Your task to perform on an android device: Open Youtube and go to "Your channel" Image 0: 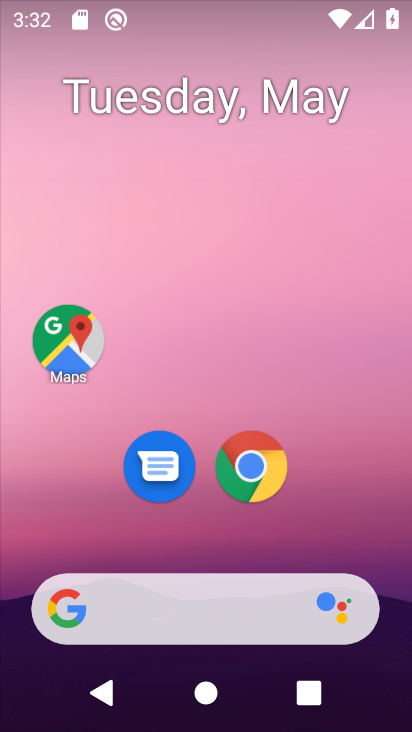
Step 0: drag from (309, 512) to (302, 57)
Your task to perform on an android device: Open Youtube and go to "Your channel" Image 1: 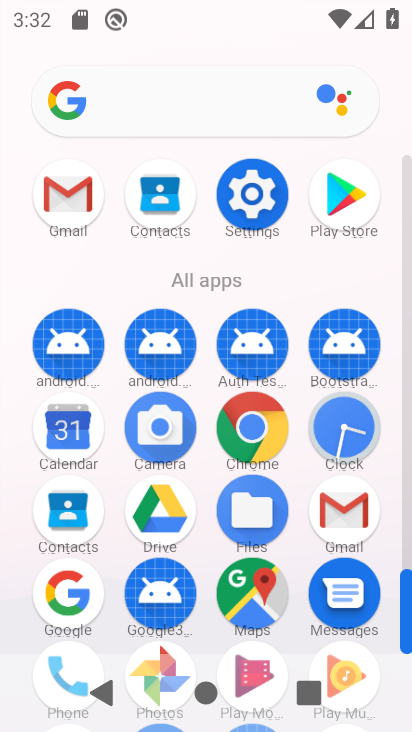
Step 1: drag from (198, 306) to (194, 52)
Your task to perform on an android device: Open Youtube and go to "Your channel" Image 2: 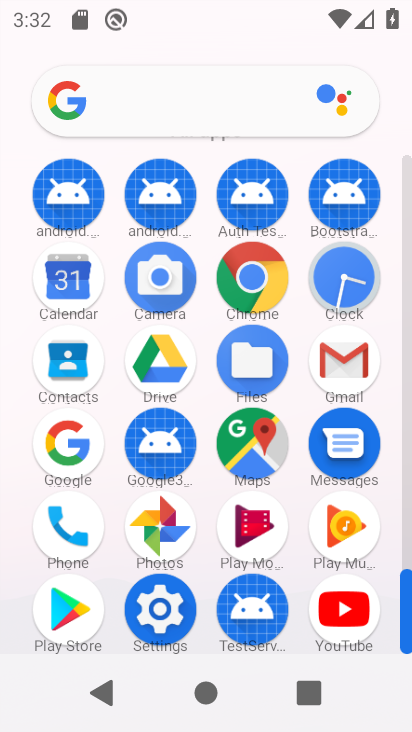
Step 2: click (336, 606)
Your task to perform on an android device: Open Youtube and go to "Your channel" Image 3: 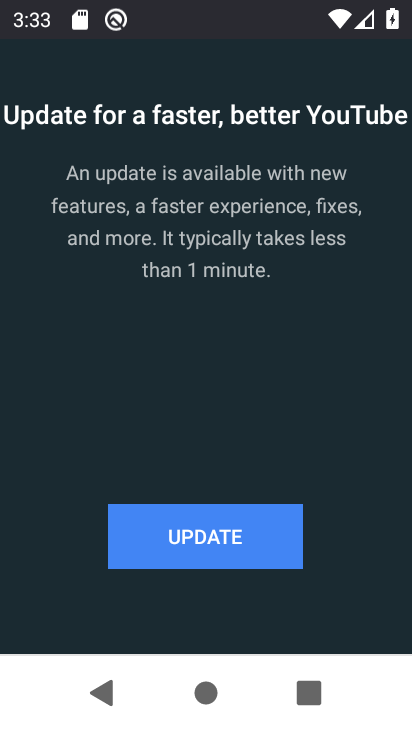
Step 3: click (244, 540)
Your task to perform on an android device: Open Youtube and go to "Your channel" Image 4: 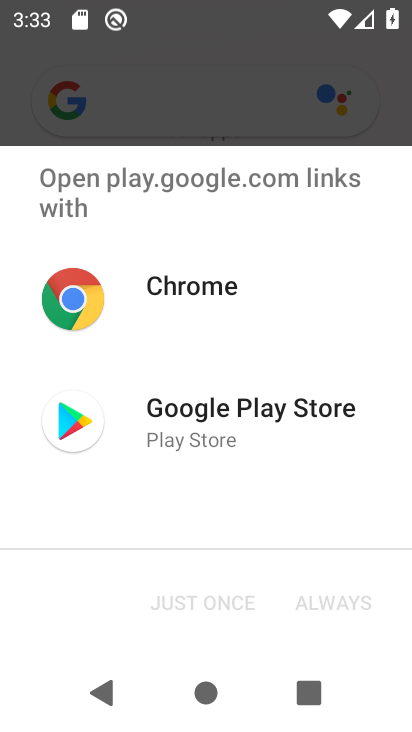
Step 4: click (187, 410)
Your task to perform on an android device: Open Youtube and go to "Your channel" Image 5: 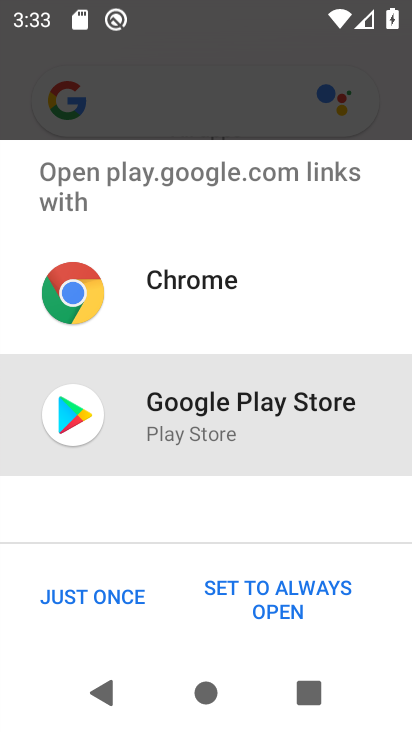
Step 5: click (129, 595)
Your task to perform on an android device: Open Youtube and go to "Your channel" Image 6: 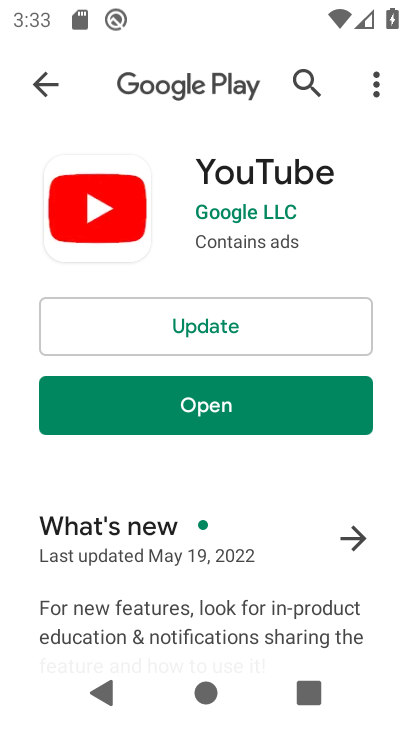
Step 6: click (242, 320)
Your task to perform on an android device: Open Youtube and go to "Your channel" Image 7: 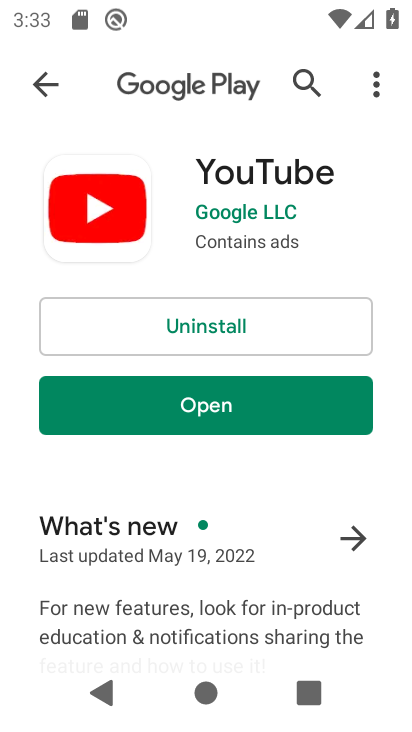
Step 7: click (309, 408)
Your task to perform on an android device: Open Youtube and go to "Your channel" Image 8: 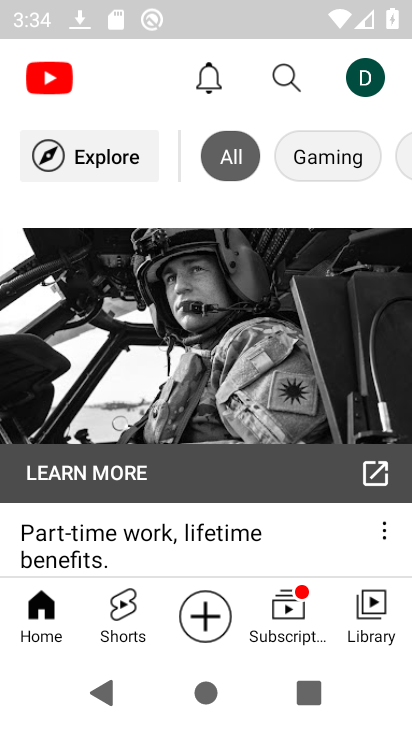
Step 8: click (363, 94)
Your task to perform on an android device: Open Youtube and go to "Your channel" Image 9: 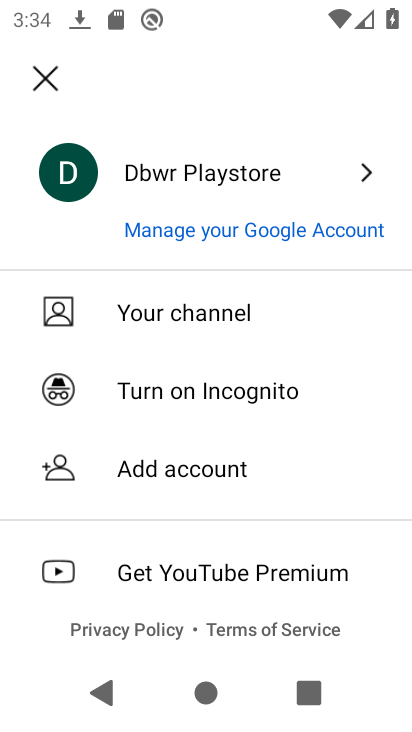
Step 9: click (244, 318)
Your task to perform on an android device: Open Youtube and go to "Your channel" Image 10: 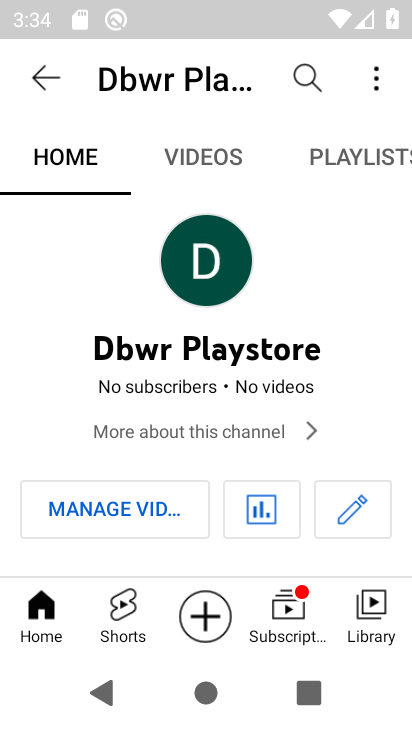
Step 10: task complete